Your task to perform on an android device: Open the stopwatch Image 0: 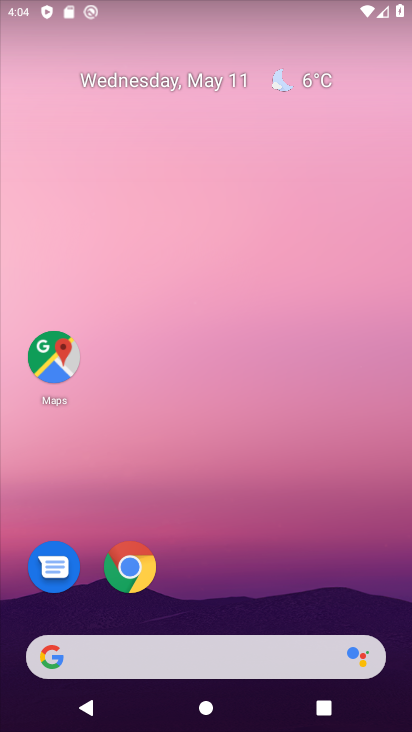
Step 0: drag from (200, 615) to (299, 149)
Your task to perform on an android device: Open the stopwatch Image 1: 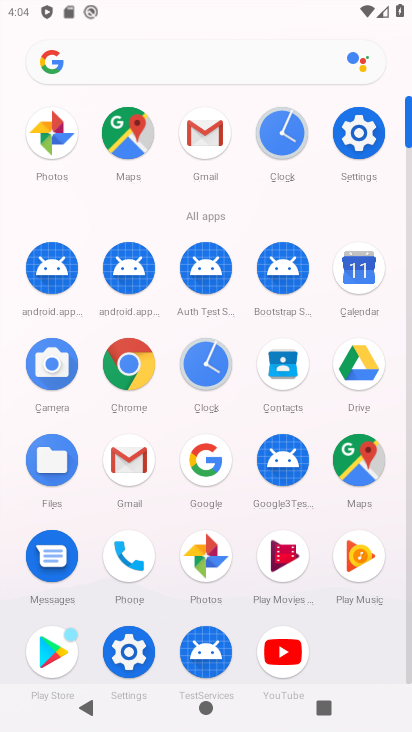
Step 1: click (211, 370)
Your task to perform on an android device: Open the stopwatch Image 2: 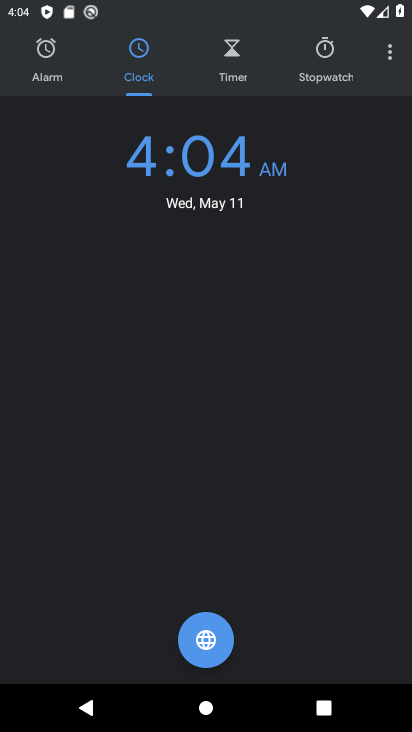
Step 2: click (337, 57)
Your task to perform on an android device: Open the stopwatch Image 3: 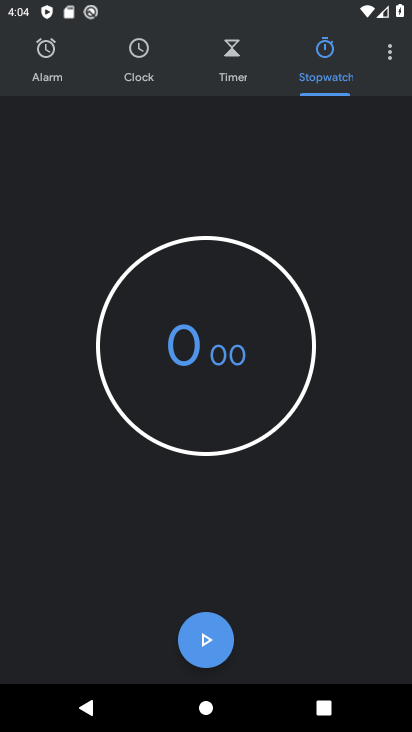
Step 3: task complete